Your task to perform on an android device: delete browsing data in the chrome app Image 0: 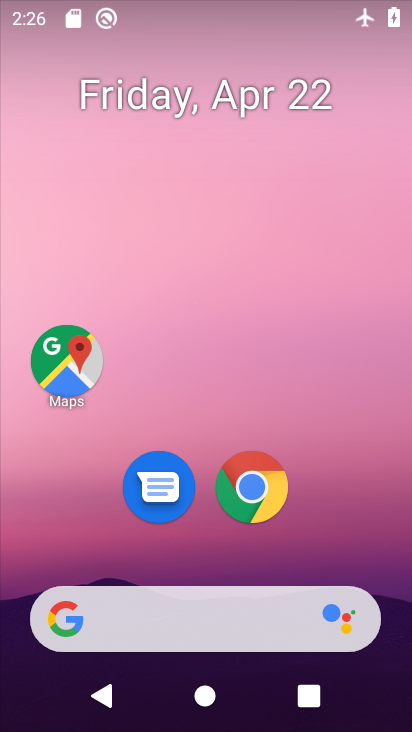
Step 0: click (274, 492)
Your task to perform on an android device: delete browsing data in the chrome app Image 1: 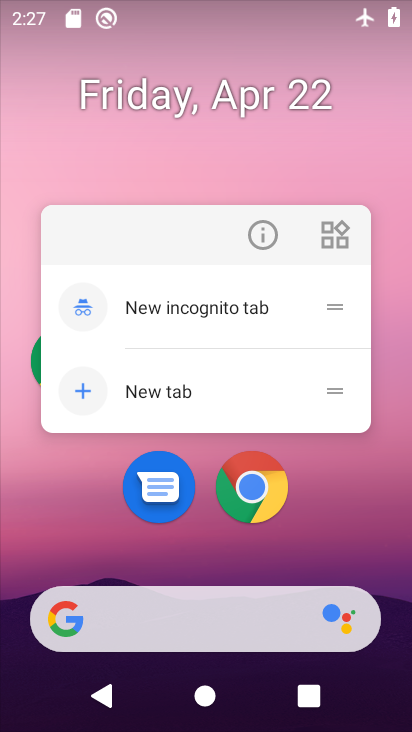
Step 1: click (270, 230)
Your task to perform on an android device: delete browsing data in the chrome app Image 2: 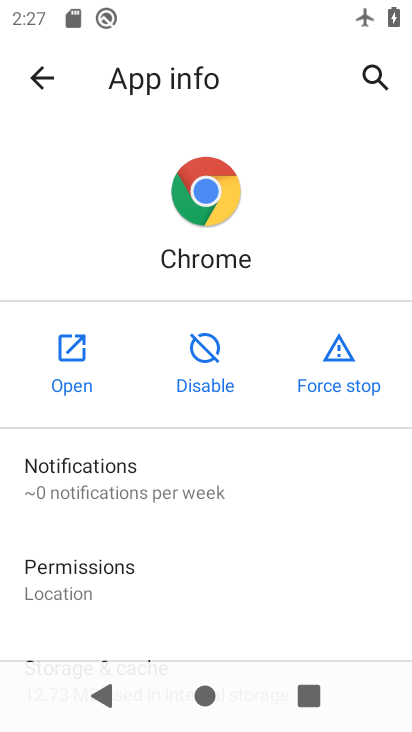
Step 2: click (59, 402)
Your task to perform on an android device: delete browsing data in the chrome app Image 3: 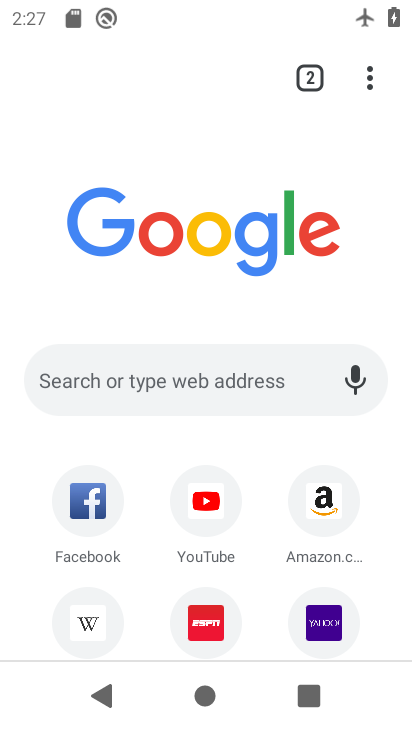
Step 3: click (359, 83)
Your task to perform on an android device: delete browsing data in the chrome app Image 4: 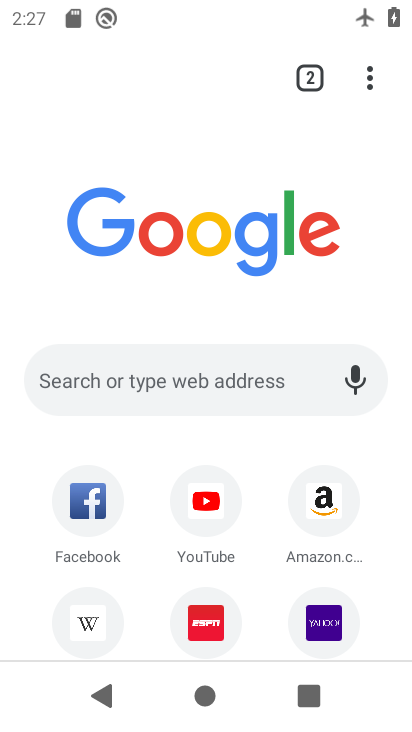
Step 4: click (372, 76)
Your task to perform on an android device: delete browsing data in the chrome app Image 5: 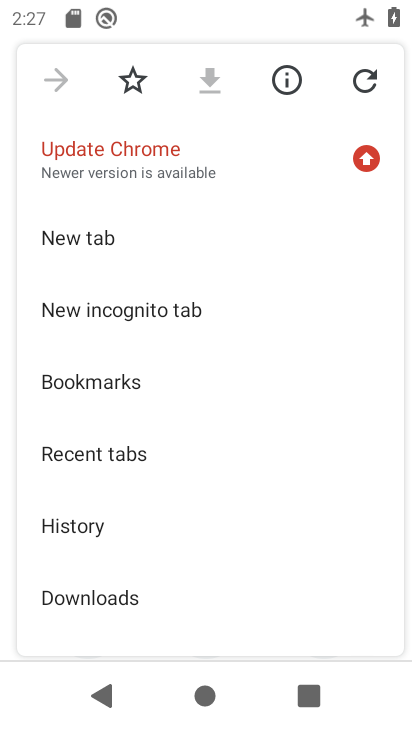
Step 5: drag from (148, 539) to (167, 180)
Your task to perform on an android device: delete browsing data in the chrome app Image 6: 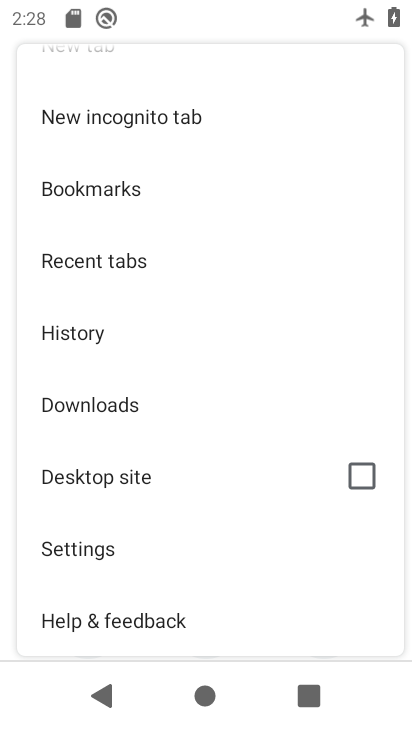
Step 6: click (110, 346)
Your task to perform on an android device: delete browsing data in the chrome app Image 7: 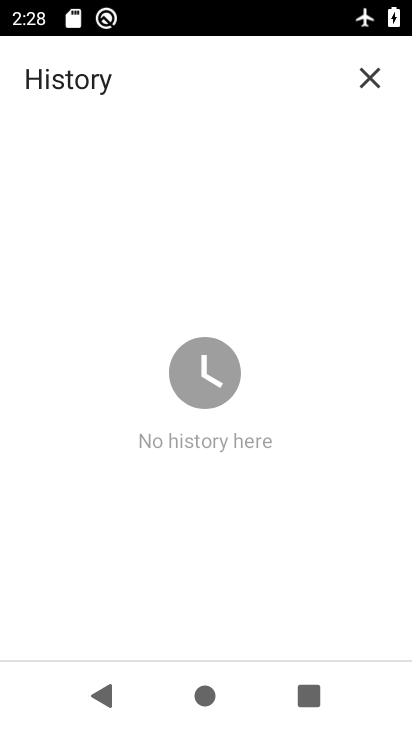
Step 7: task complete